Your task to perform on an android device: toggle priority inbox in the gmail app Image 0: 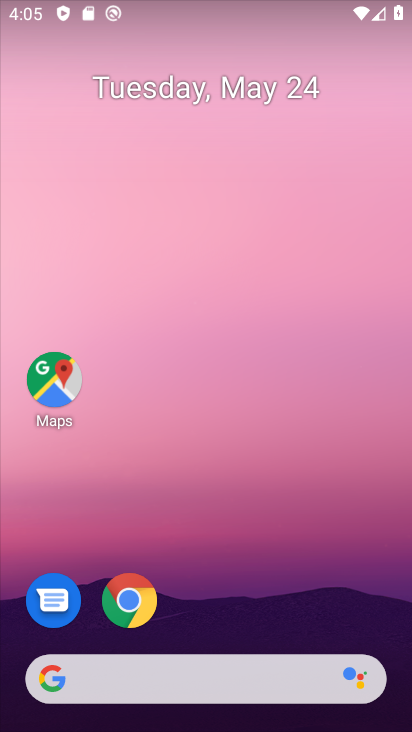
Step 0: drag from (312, 646) to (339, 17)
Your task to perform on an android device: toggle priority inbox in the gmail app Image 1: 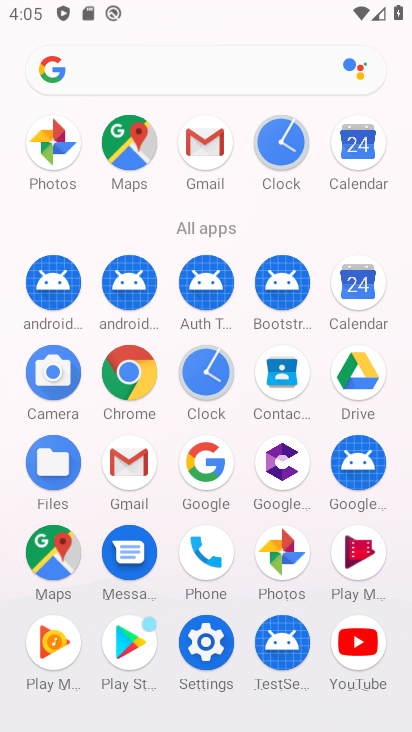
Step 1: click (206, 145)
Your task to perform on an android device: toggle priority inbox in the gmail app Image 2: 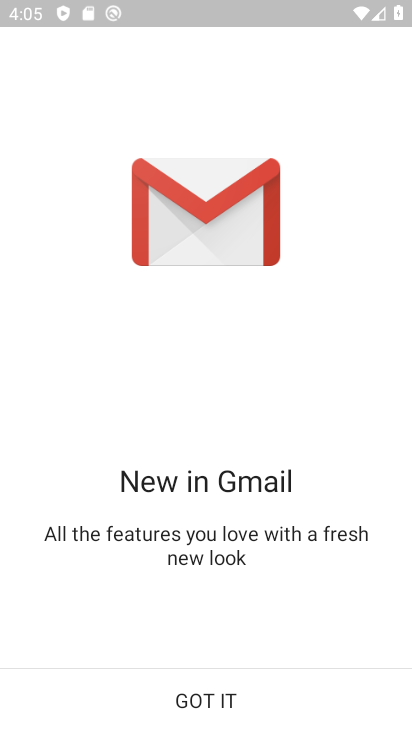
Step 2: click (186, 704)
Your task to perform on an android device: toggle priority inbox in the gmail app Image 3: 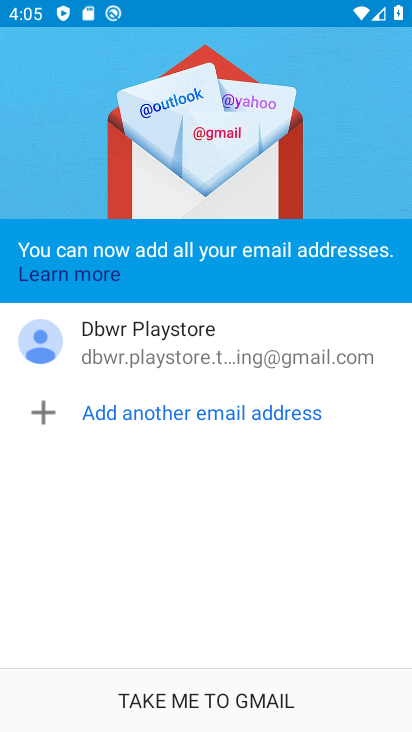
Step 3: click (185, 705)
Your task to perform on an android device: toggle priority inbox in the gmail app Image 4: 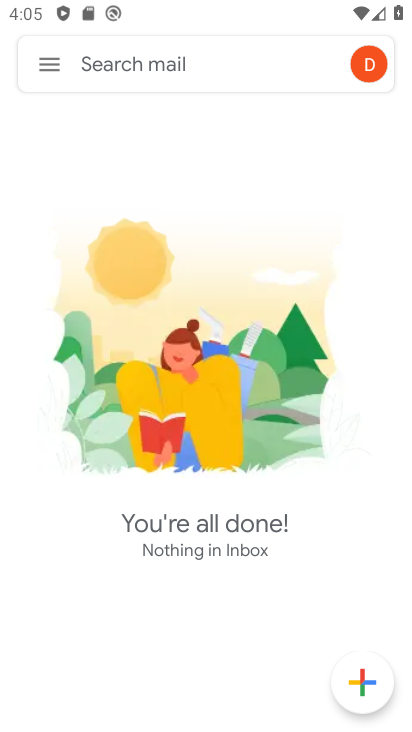
Step 4: click (47, 62)
Your task to perform on an android device: toggle priority inbox in the gmail app Image 5: 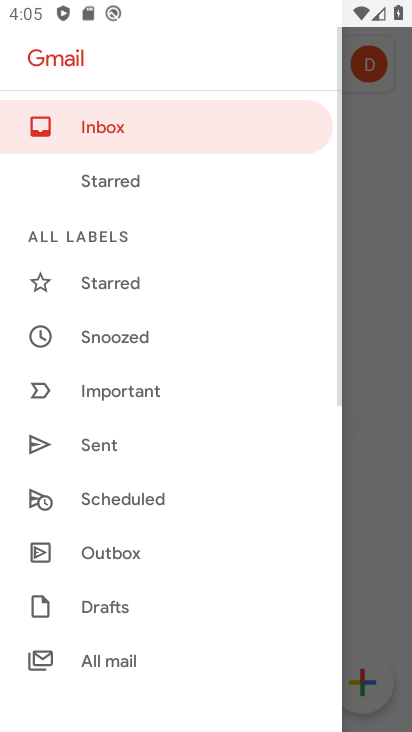
Step 5: drag from (192, 640) to (211, 153)
Your task to perform on an android device: toggle priority inbox in the gmail app Image 6: 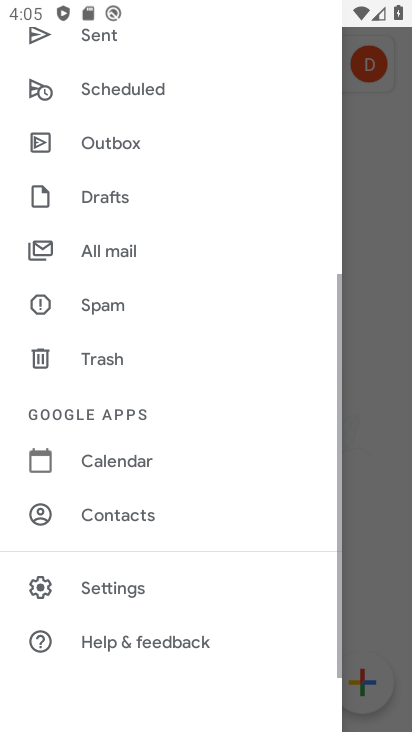
Step 6: click (134, 584)
Your task to perform on an android device: toggle priority inbox in the gmail app Image 7: 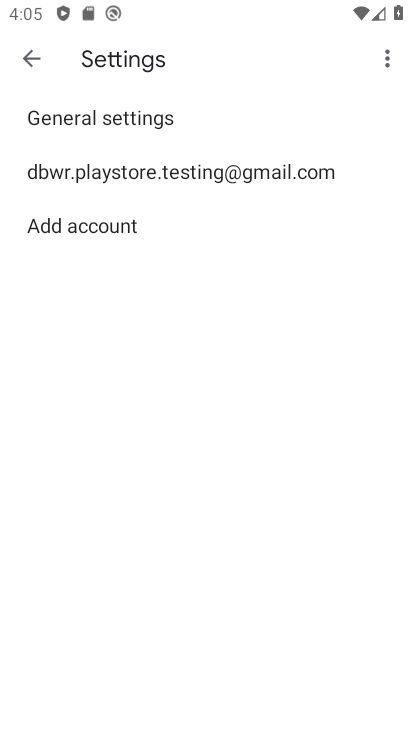
Step 7: click (96, 176)
Your task to perform on an android device: toggle priority inbox in the gmail app Image 8: 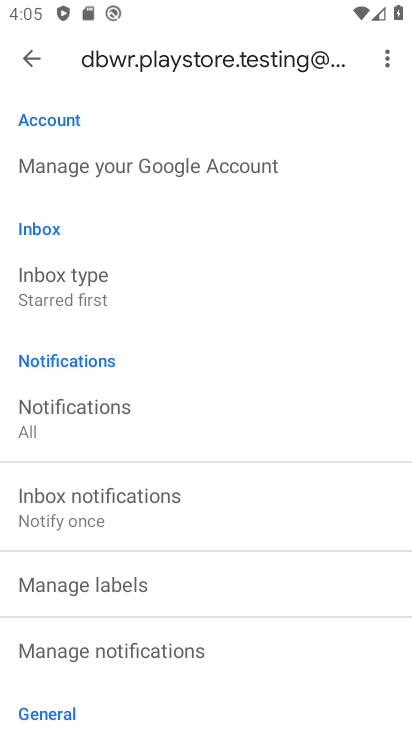
Step 8: click (75, 291)
Your task to perform on an android device: toggle priority inbox in the gmail app Image 9: 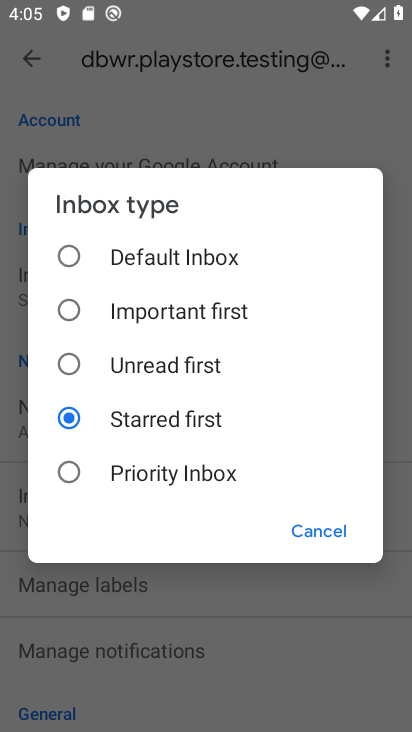
Step 9: click (74, 481)
Your task to perform on an android device: toggle priority inbox in the gmail app Image 10: 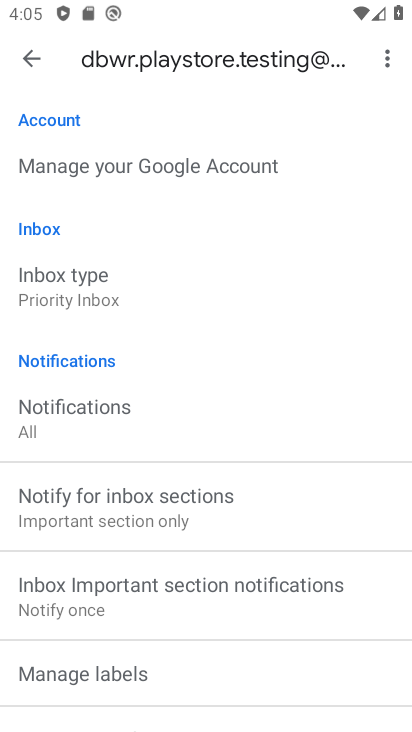
Step 10: task complete